Your task to perform on an android device: visit the assistant section in the google photos Image 0: 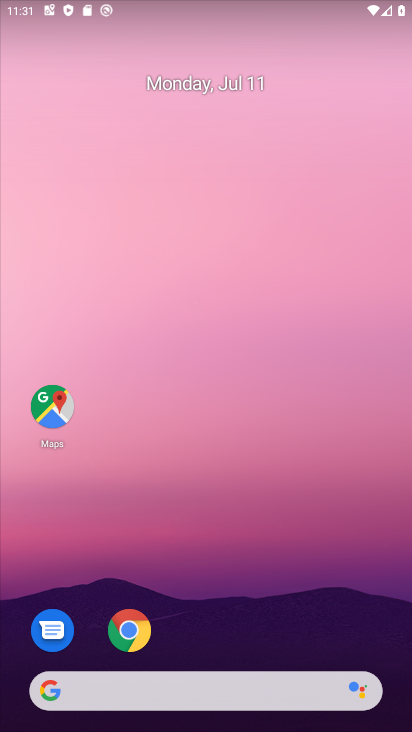
Step 0: drag from (185, 586) to (241, 120)
Your task to perform on an android device: visit the assistant section in the google photos Image 1: 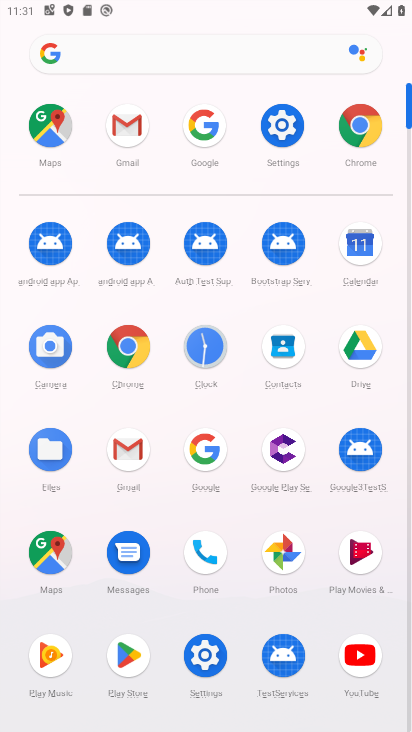
Step 1: click (285, 549)
Your task to perform on an android device: visit the assistant section in the google photos Image 2: 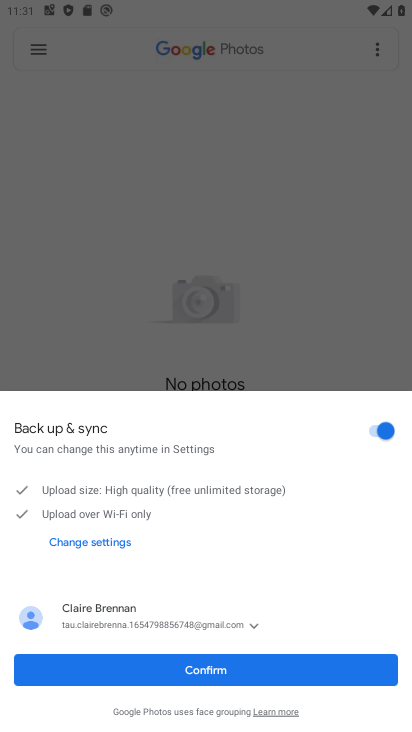
Step 2: click (198, 677)
Your task to perform on an android device: visit the assistant section in the google photos Image 3: 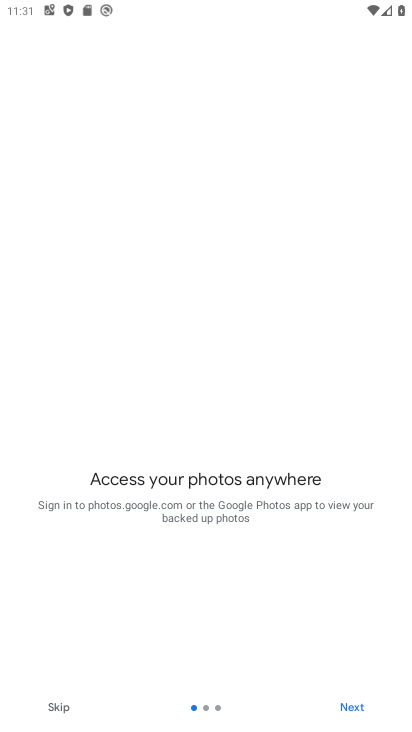
Step 3: click (351, 706)
Your task to perform on an android device: visit the assistant section in the google photos Image 4: 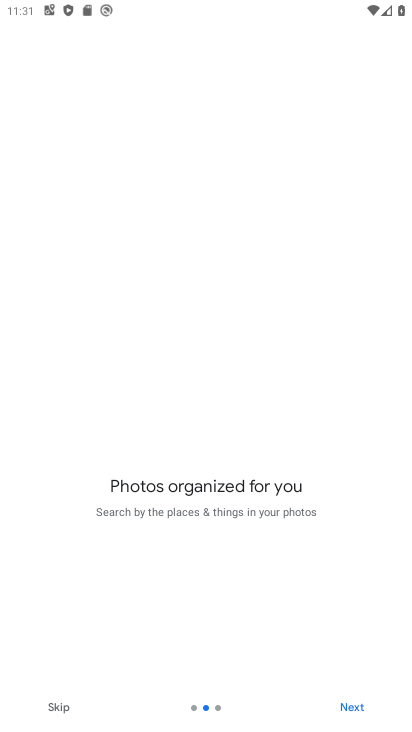
Step 4: click (351, 706)
Your task to perform on an android device: visit the assistant section in the google photos Image 5: 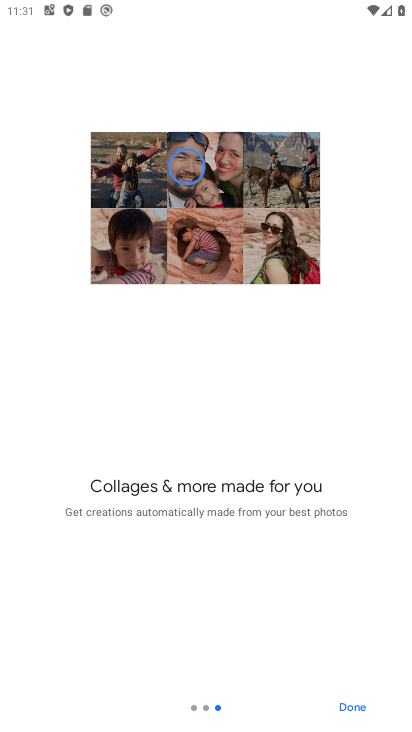
Step 5: click (351, 706)
Your task to perform on an android device: visit the assistant section in the google photos Image 6: 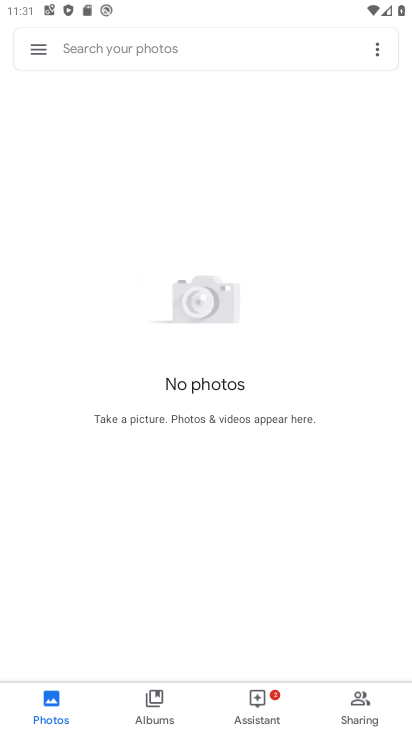
Step 6: click (263, 707)
Your task to perform on an android device: visit the assistant section in the google photos Image 7: 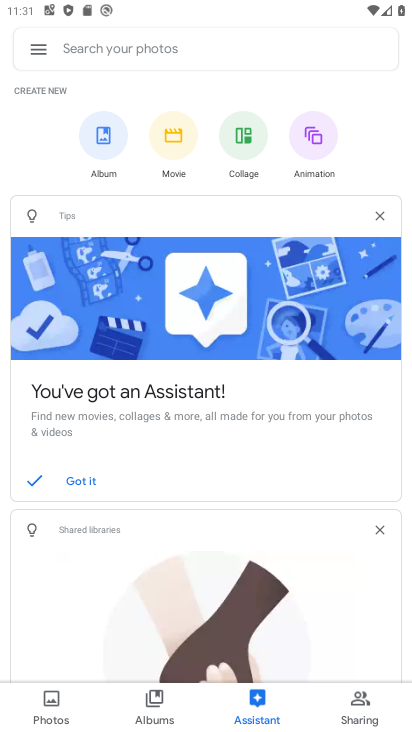
Step 7: task complete